Your task to perform on an android device: change your default location settings in chrome Image 0: 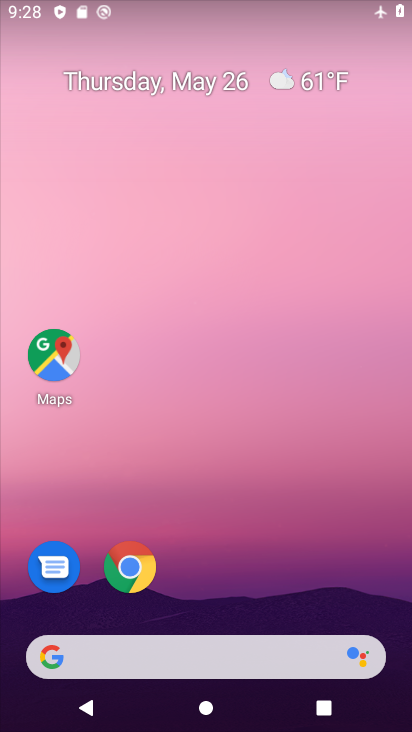
Step 0: drag from (303, 551) to (314, 98)
Your task to perform on an android device: change your default location settings in chrome Image 1: 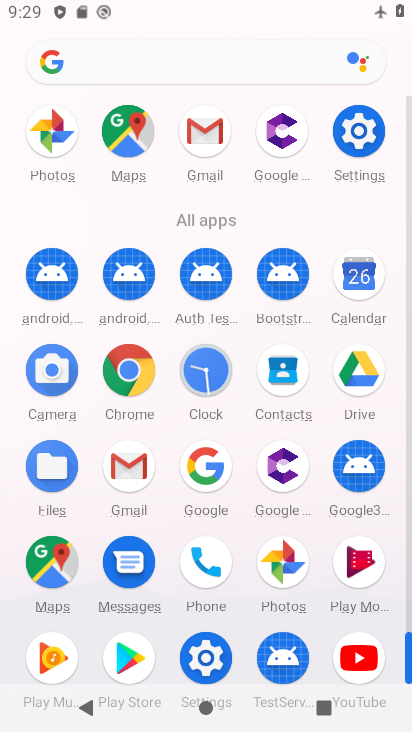
Step 1: click (129, 357)
Your task to perform on an android device: change your default location settings in chrome Image 2: 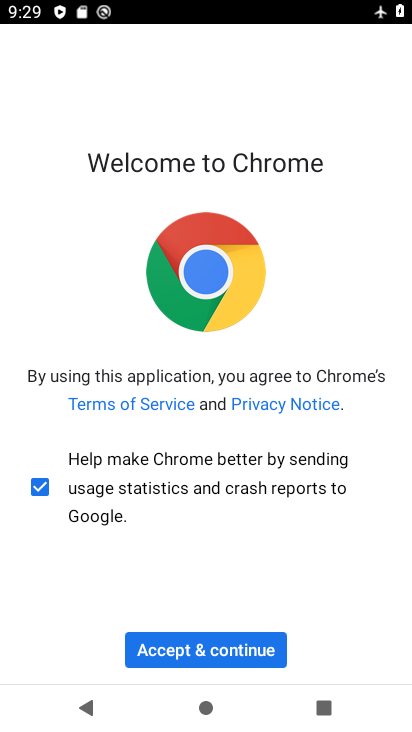
Step 2: click (219, 651)
Your task to perform on an android device: change your default location settings in chrome Image 3: 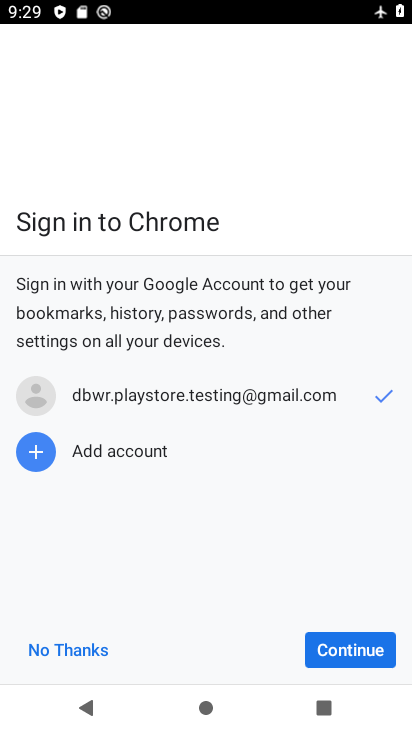
Step 3: click (355, 655)
Your task to perform on an android device: change your default location settings in chrome Image 4: 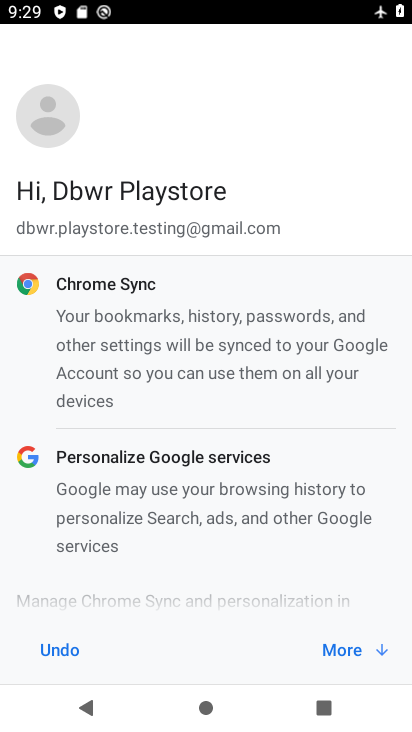
Step 4: click (351, 648)
Your task to perform on an android device: change your default location settings in chrome Image 5: 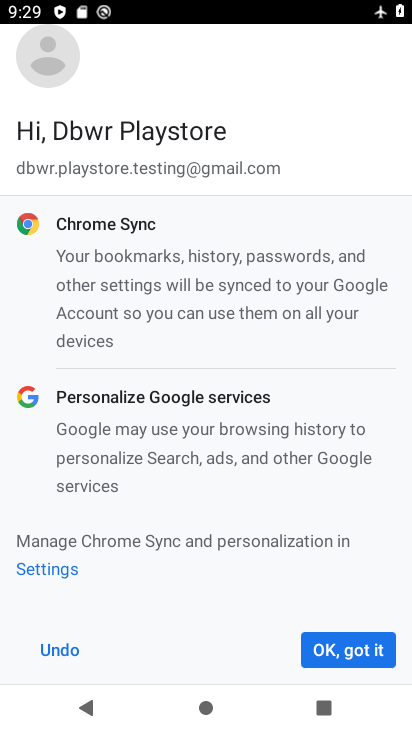
Step 5: click (351, 648)
Your task to perform on an android device: change your default location settings in chrome Image 6: 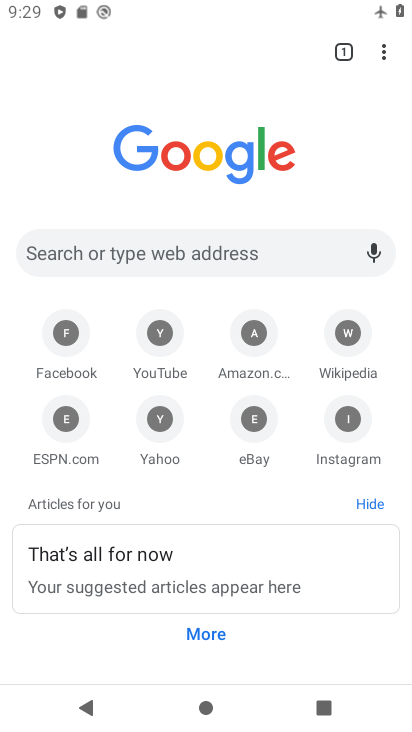
Step 6: click (377, 48)
Your task to perform on an android device: change your default location settings in chrome Image 7: 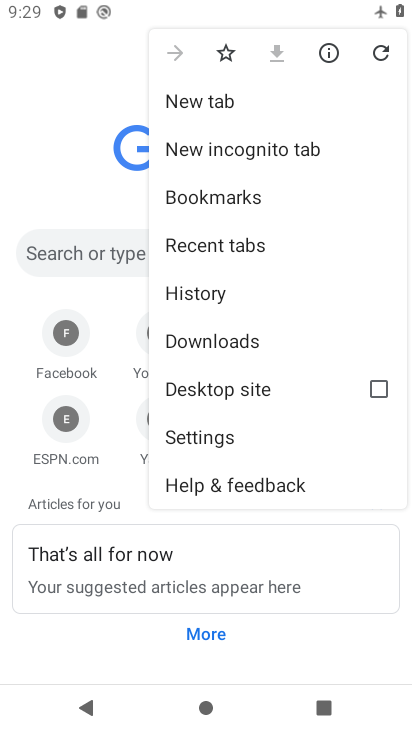
Step 7: click (239, 433)
Your task to perform on an android device: change your default location settings in chrome Image 8: 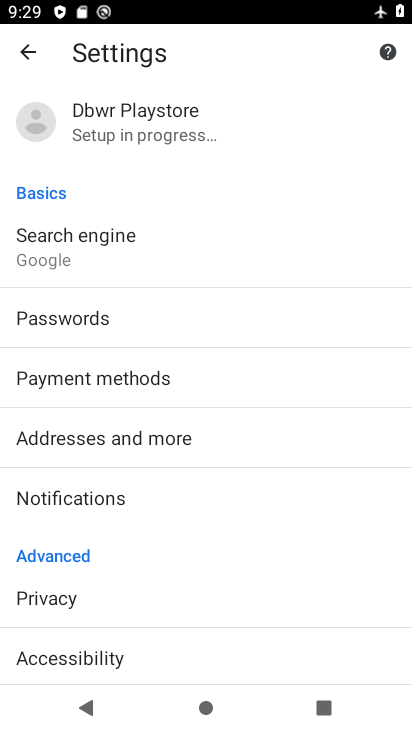
Step 8: drag from (190, 584) to (214, 232)
Your task to perform on an android device: change your default location settings in chrome Image 9: 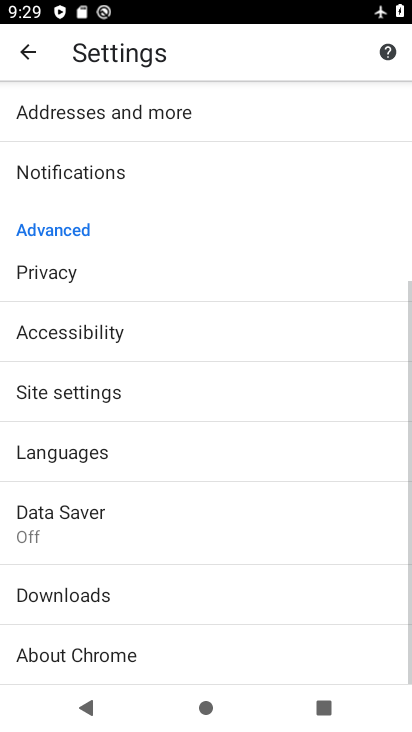
Step 9: click (151, 394)
Your task to perform on an android device: change your default location settings in chrome Image 10: 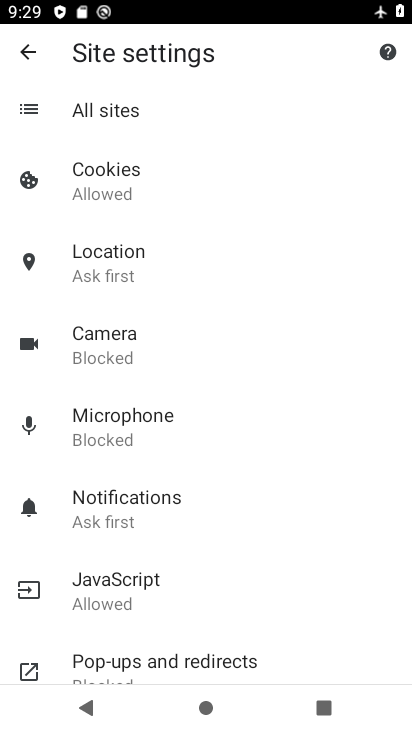
Step 10: click (163, 251)
Your task to perform on an android device: change your default location settings in chrome Image 11: 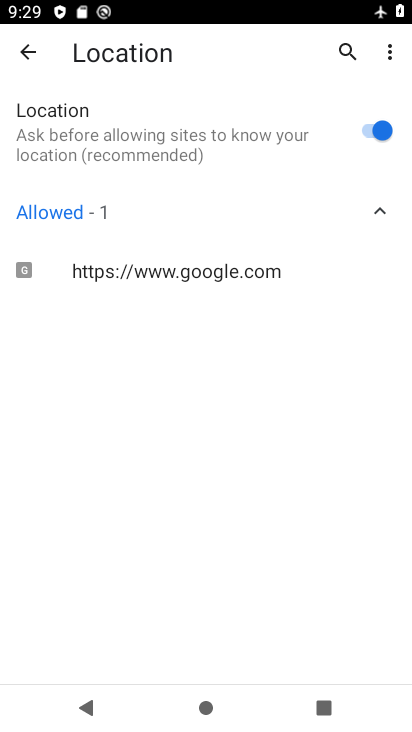
Step 11: click (385, 127)
Your task to perform on an android device: change your default location settings in chrome Image 12: 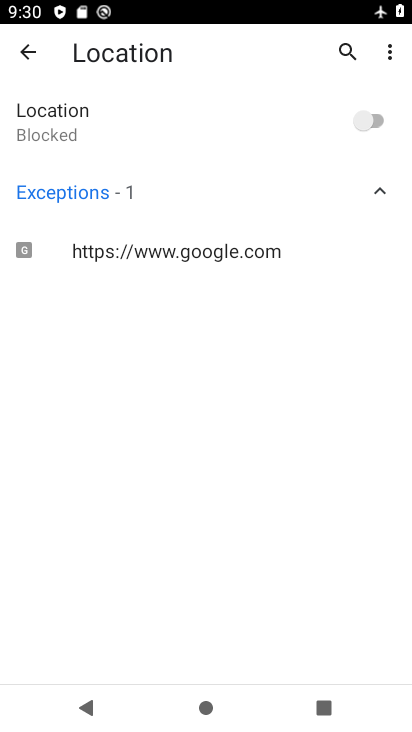
Step 12: task complete